Your task to perform on an android device: What's the weather? Image 0: 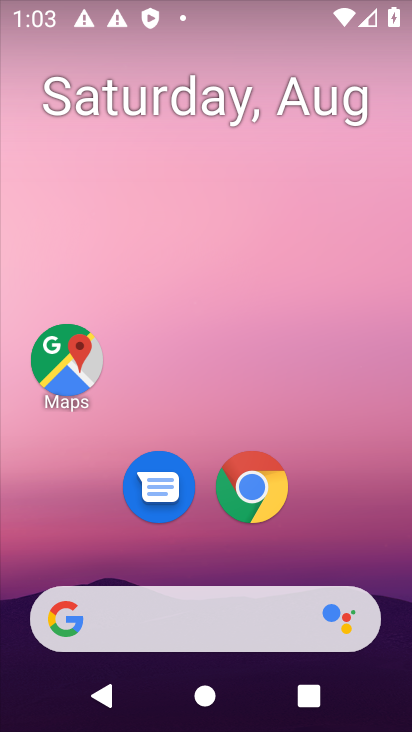
Step 0: drag from (360, 561) to (382, 32)
Your task to perform on an android device: What's the weather? Image 1: 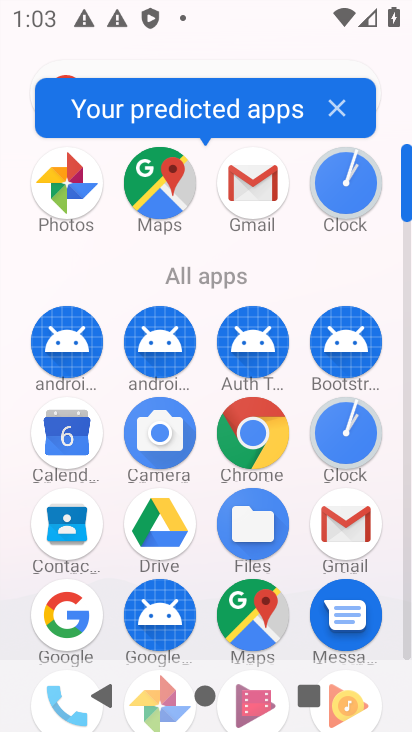
Step 1: click (52, 631)
Your task to perform on an android device: What's the weather? Image 2: 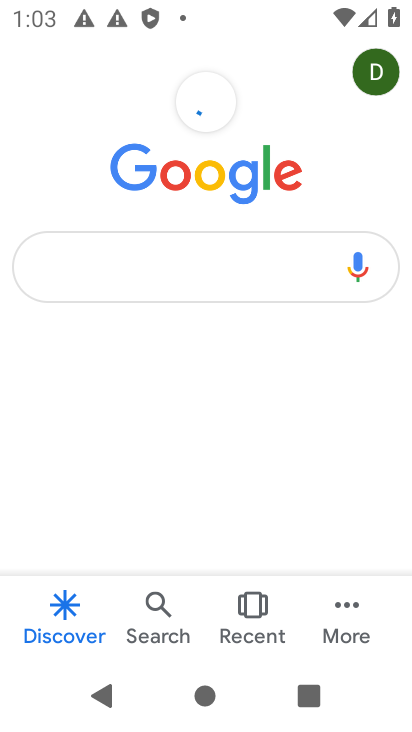
Step 2: click (145, 262)
Your task to perform on an android device: What's the weather? Image 3: 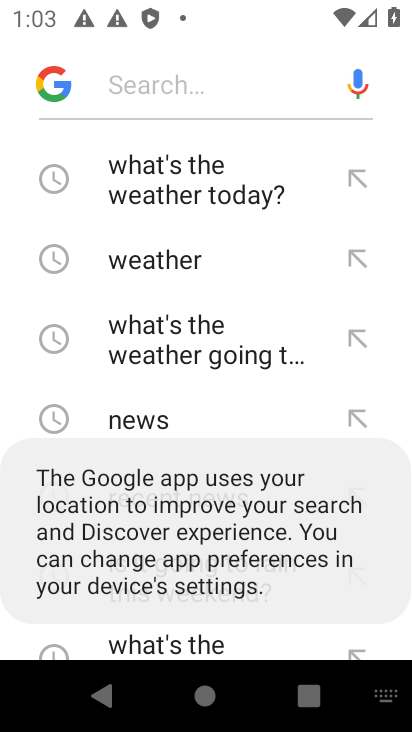
Step 3: press back button
Your task to perform on an android device: What's the weather? Image 4: 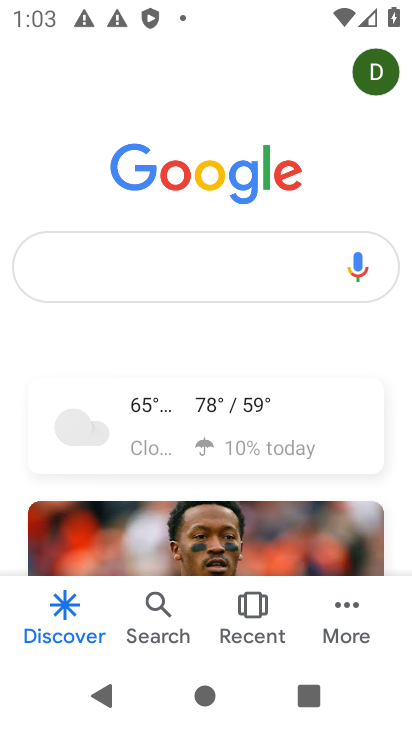
Step 4: click (301, 421)
Your task to perform on an android device: What's the weather? Image 5: 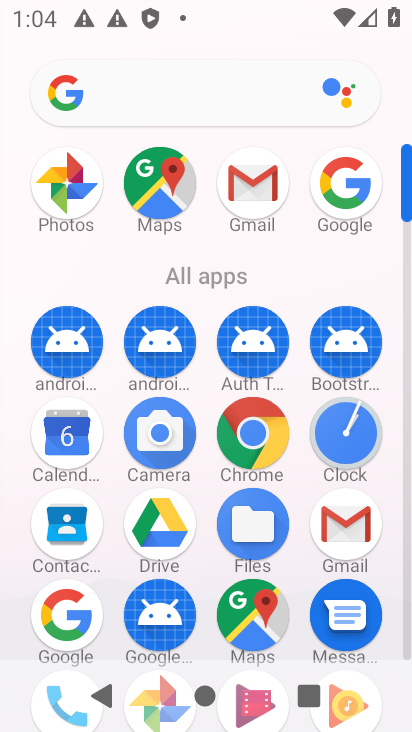
Step 5: click (59, 636)
Your task to perform on an android device: What's the weather? Image 6: 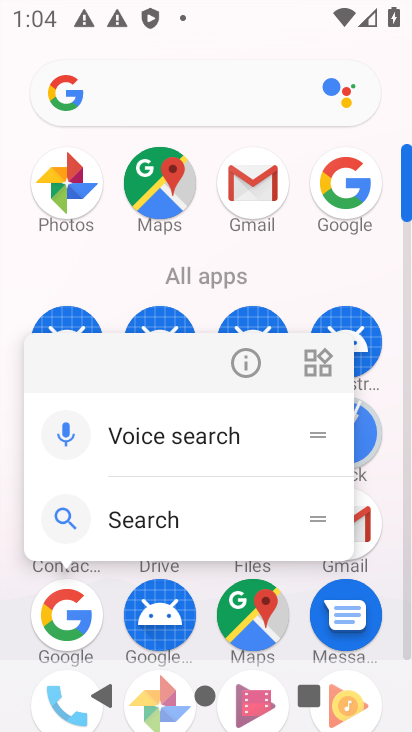
Step 6: click (59, 637)
Your task to perform on an android device: What's the weather? Image 7: 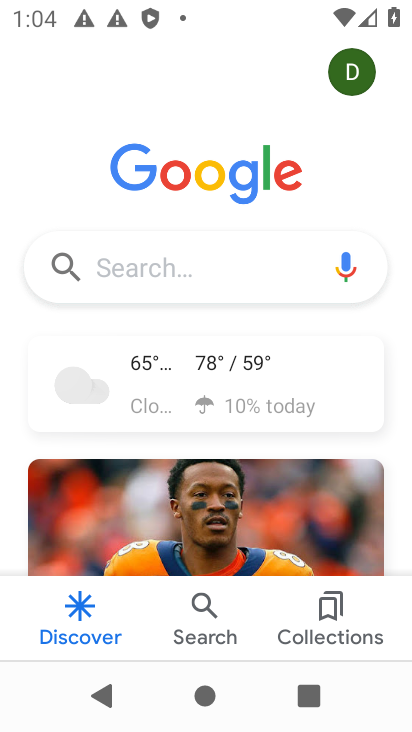
Step 7: click (183, 368)
Your task to perform on an android device: What's the weather? Image 8: 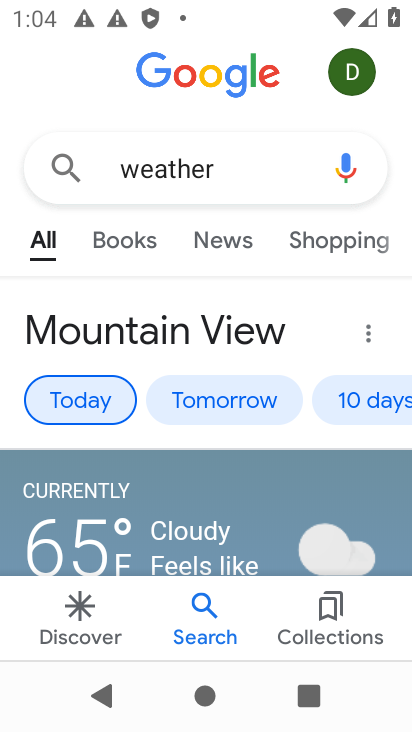
Step 8: task complete